Your task to perform on an android device: What is the capital of Germany? Image 0: 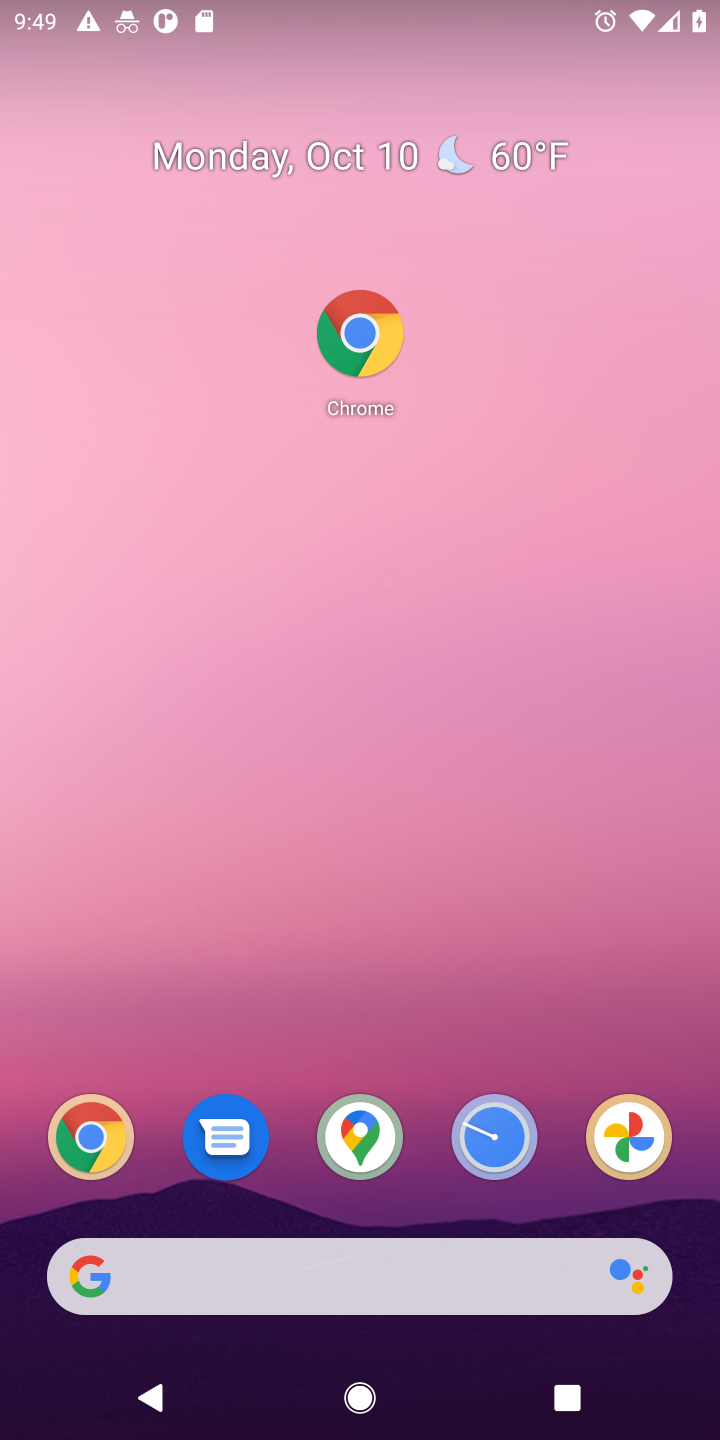
Step 0: click (359, 317)
Your task to perform on an android device: What is the capital of Germany? Image 1: 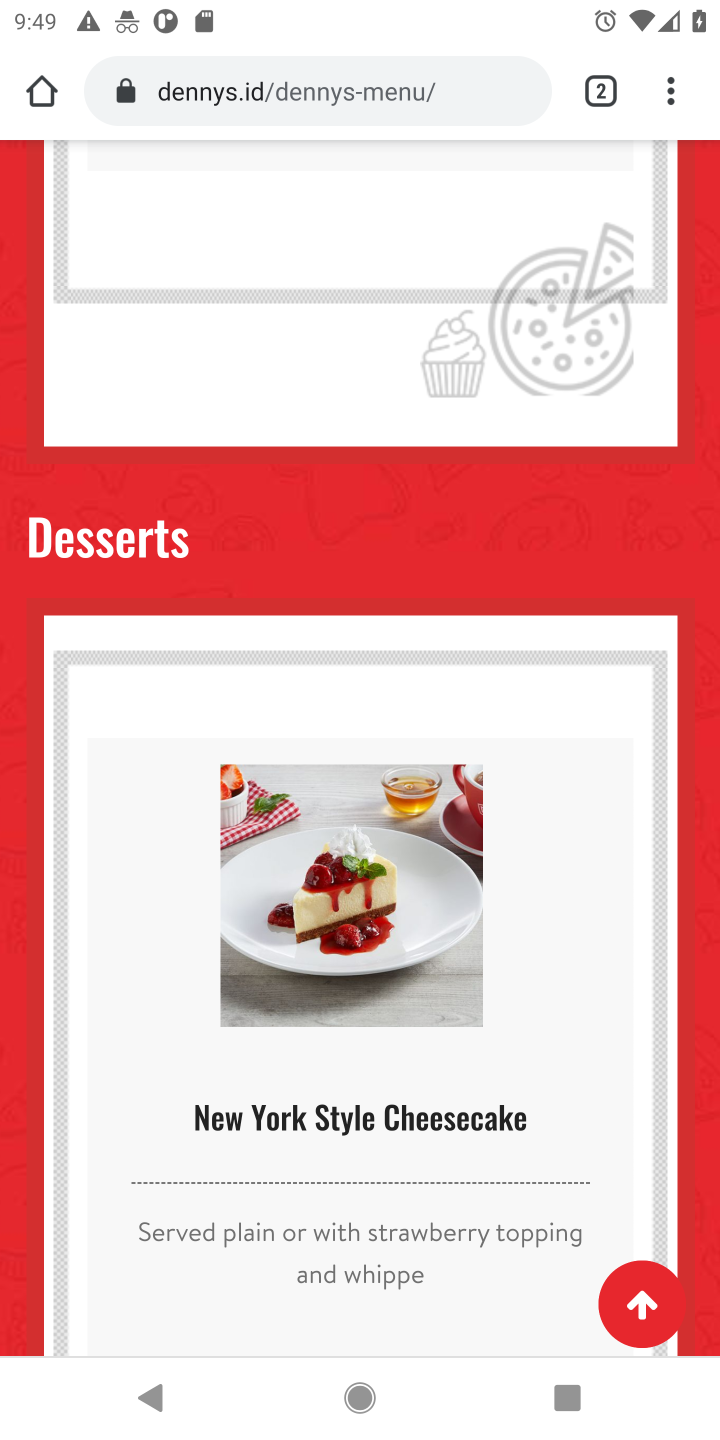
Step 1: click (381, 62)
Your task to perform on an android device: What is the capital of Germany? Image 2: 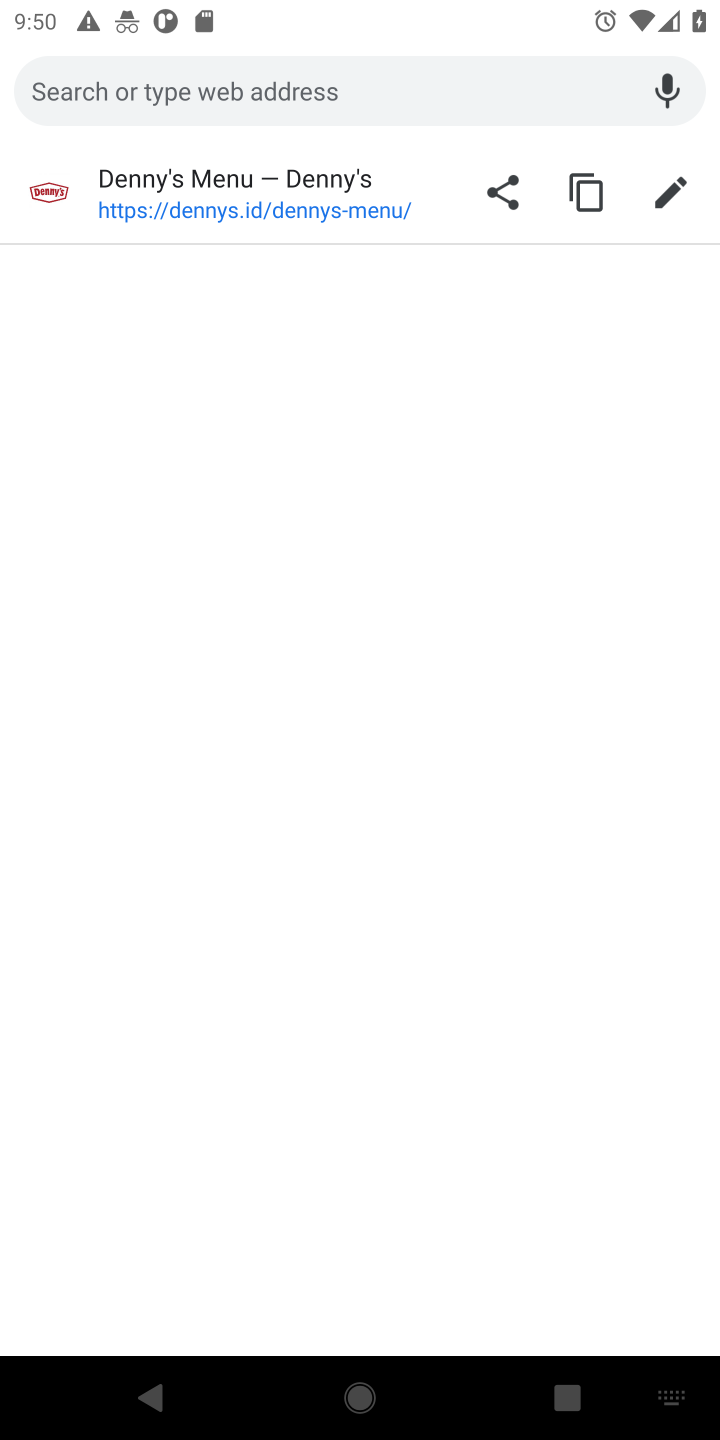
Step 2: type "capital of germany"
Your task to perform on an android device: What is the capital of Germany? Image 3: 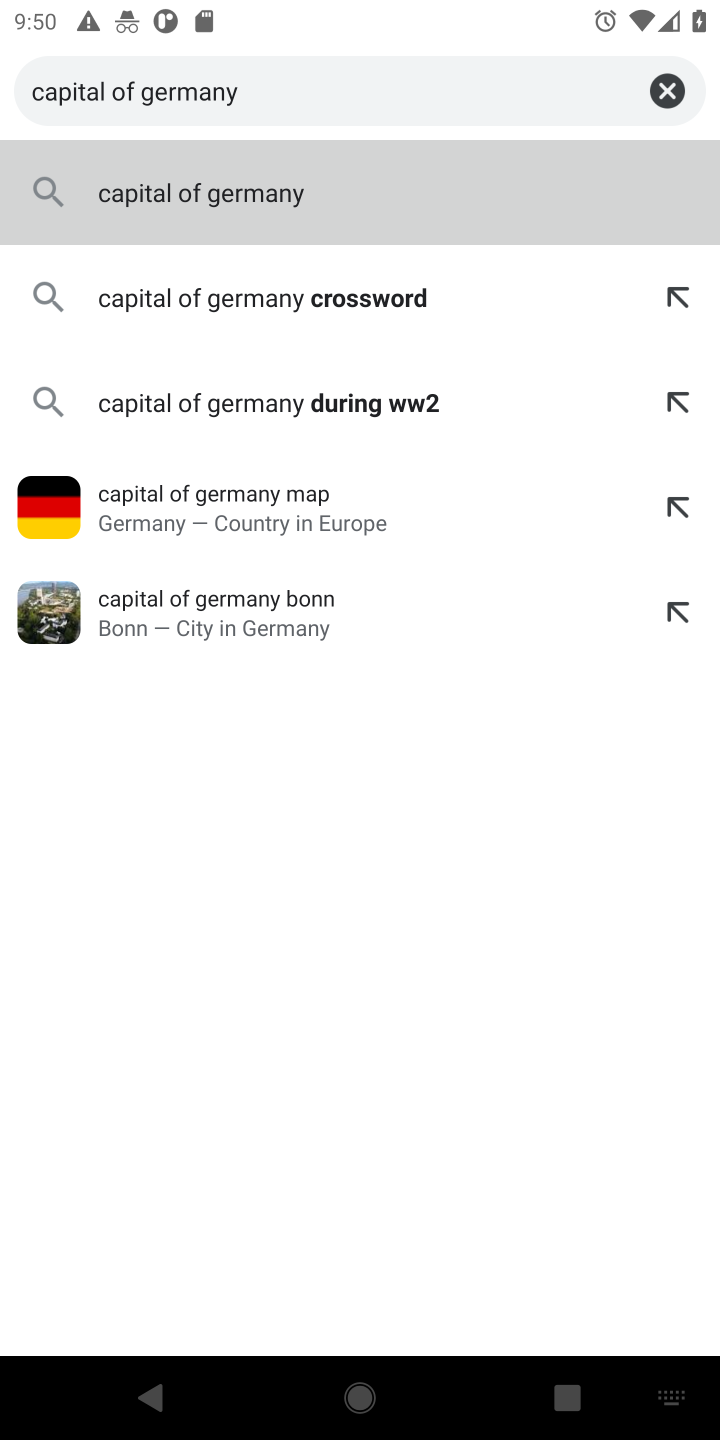
Step 3: click (199, 198)
Your task to perform on an android device: What is the capital of Germany? Image 4: 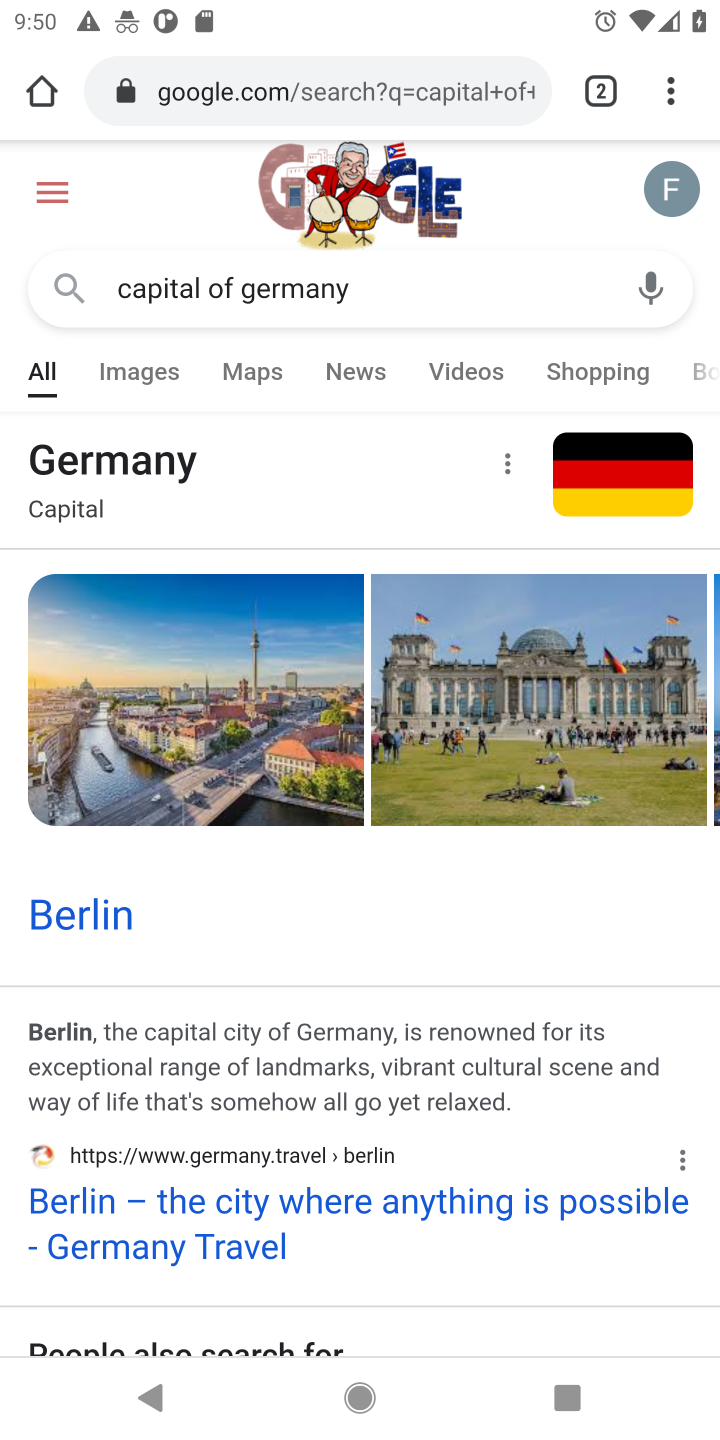
Step 4: task complete